Your task to perform on an android device: Search for vegetarian restaurants on Maps Image 0: 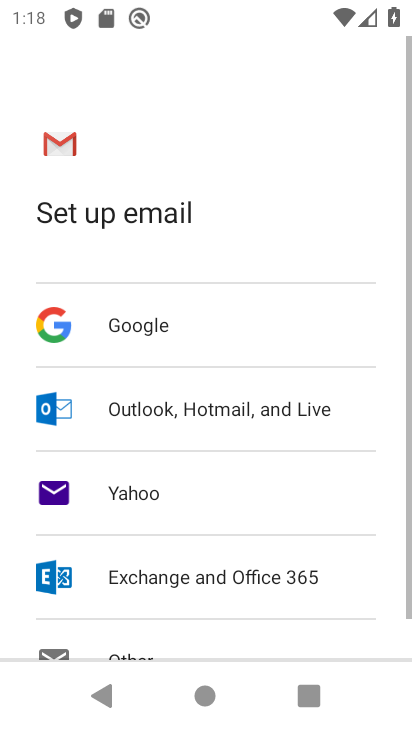
Step 0: press home button
Your task to perform on an android device: Search for vegetarian restaurants on Maps Image 1: 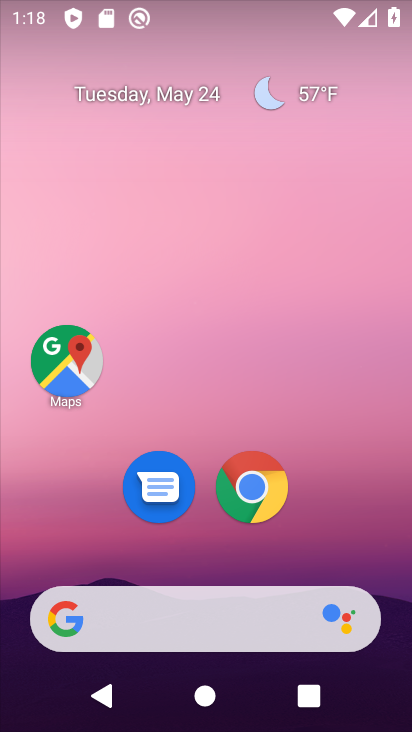
Step 1: drag from (235, 723) to (216, 104)
Your task to perform on an android device: Search for vegetarian restaurants on Maps Image 2: 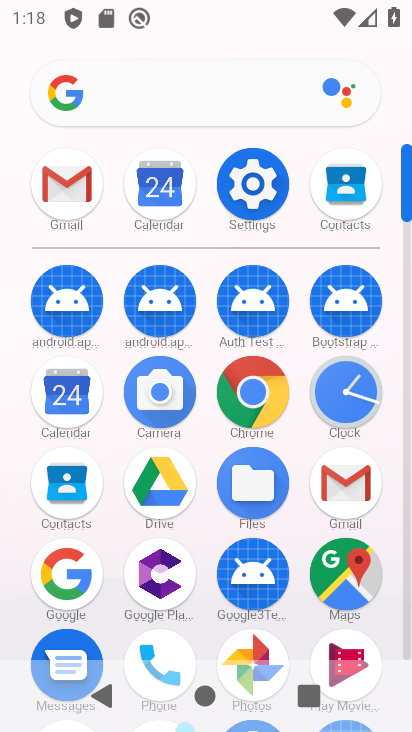
Step 2: click (341, 570)
Your task to perform on an android device: Search for vegetarian restaurants on Maps Image 3: 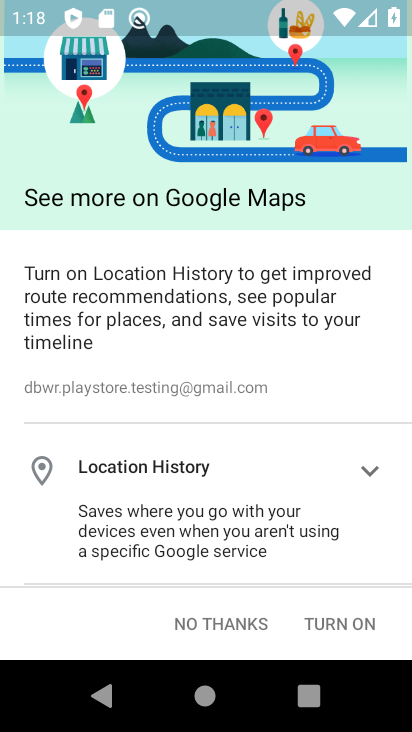
Step 3: click (201, 616)
Your task to perform on an android device: Search for vegetarian restaurants on Maps Image 4: 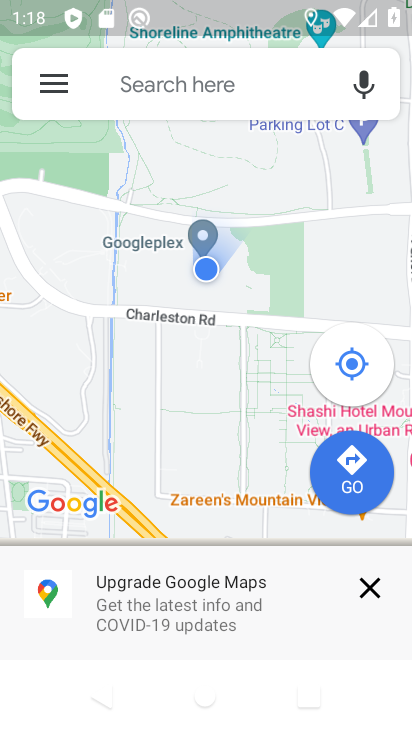
Step 4: click (202, 89)
Your task to perform on an android device: Search for vegetarian restaurants on Maps Image 5: 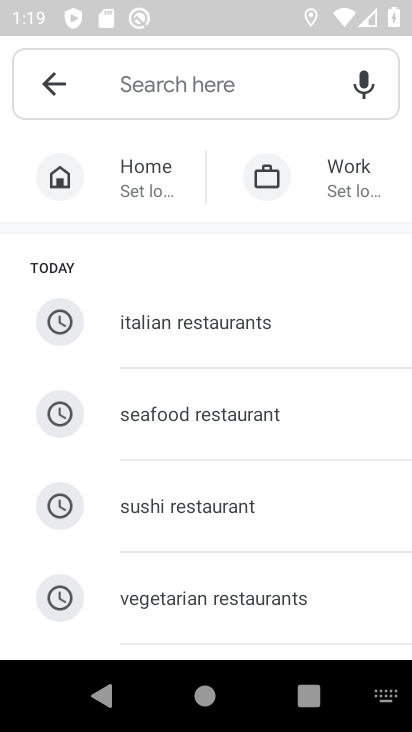
Step 5: type "vegetarian restaurants"
Your task to perform on an android device: Search for vegetarian restaurants on Maps Image 6: 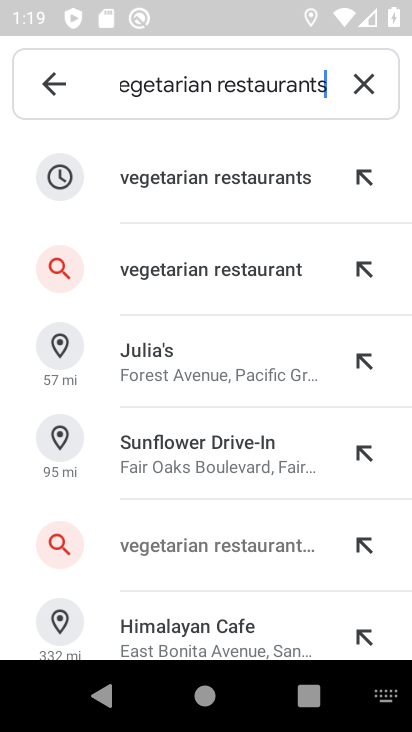
Step 6: click (223, 179)
Your task to perform on an android device: Search for vegetarian restaurants on Maps Image 7: 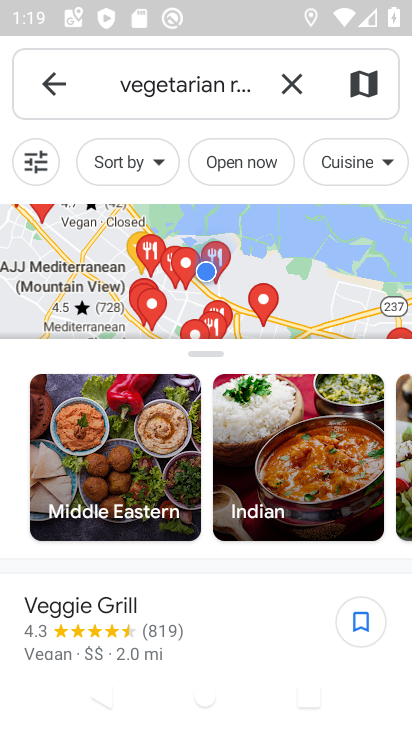
Step 7: task complete